Your task to perform on an android device: turn smart compose on in the gmail app Image 0: 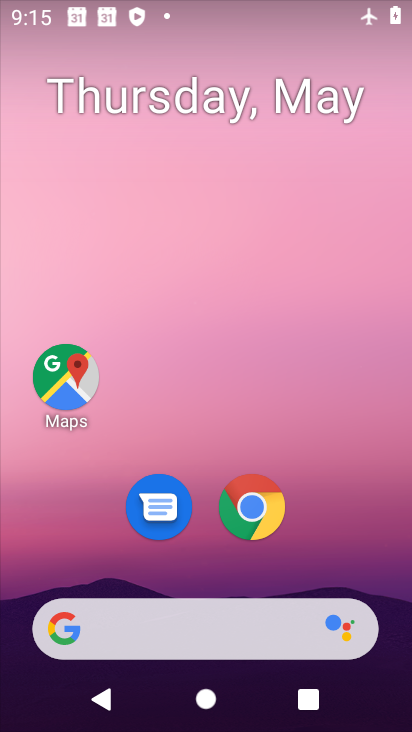
Step 0: drag from (236, 588) to (278, 58)
Your task to perform on an android device: turn smart compose on in the gmail app Image 1: 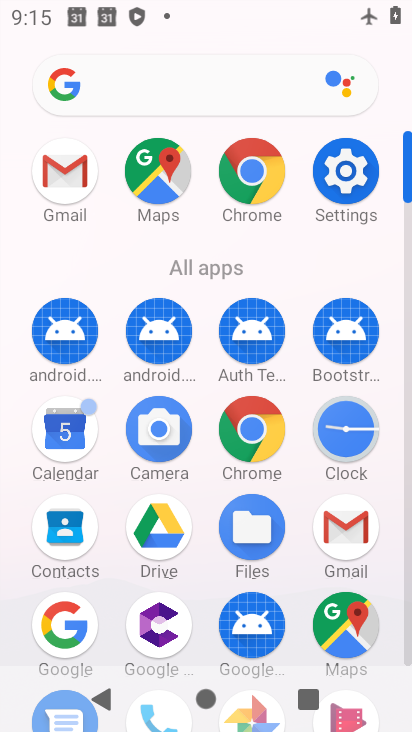
Step 1: click (348, 545)
Your task to perform on an android device: turn smart compose on in the gmail app Image 2: 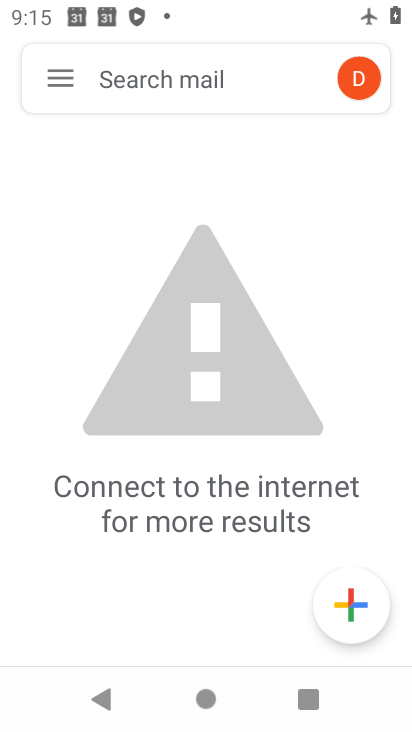
Step 2: click (64, 88)
Your task to perform on an android device: turn smart compose on in the gmail app Image 3: 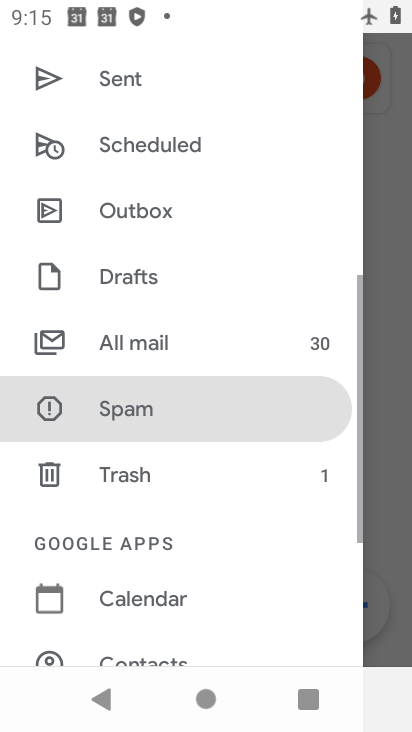
Step 3: drag from (236, 485) to (253, 18)
Your task to perform on an android device: turn smart compose on in the gmail app Image 4: 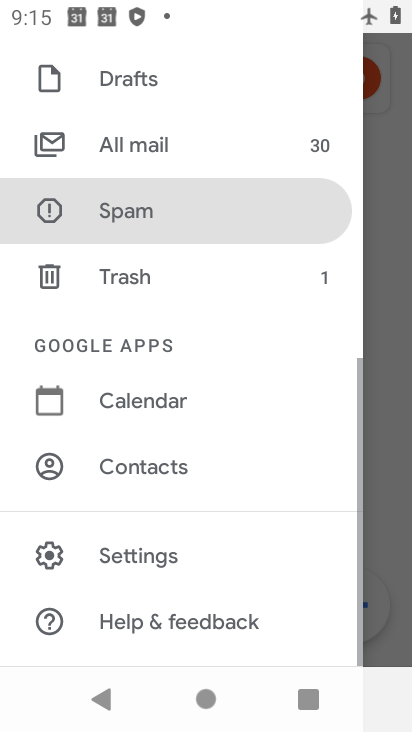
Step 4: click (171, 556)
Your task to perform on an android device: turn smart compose on in the gmail app Image 5: 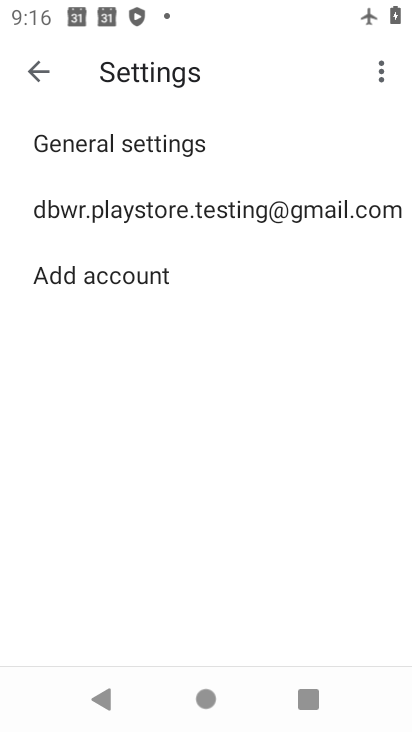
Step 5: click (197, 218)
Your task to perform on an android device: turn smart compose on in the gmail app Image 6: 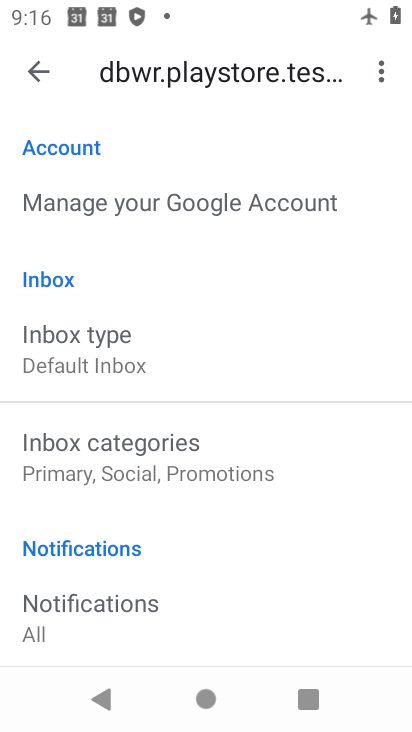
Step 6: task complete